Your task to perform on an android device: What's the weather going to be tomorrow? Image 0: 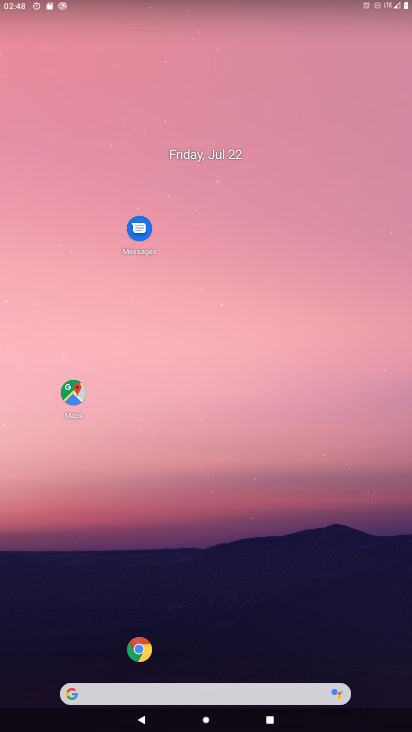
Step 0: drag from (24, 676) to (154, 204)
Your task to perform on an android device: What's the weather going to be tomorrow? Image 1: 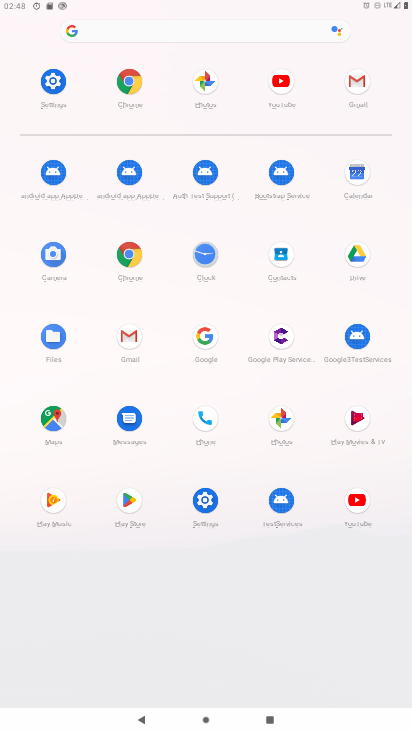
Step 1: click (83, 27)
Your task to perform on an android device: What's the weather going to be tomorrow? Image 2: 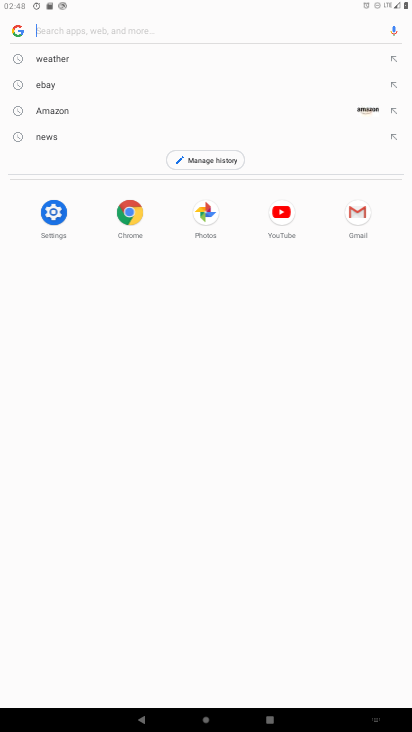
Step 2: type "What's the weather going to be tomorrow?"
Your task to perform on an android device: What's the weather going to be tomorrow? Image 3: 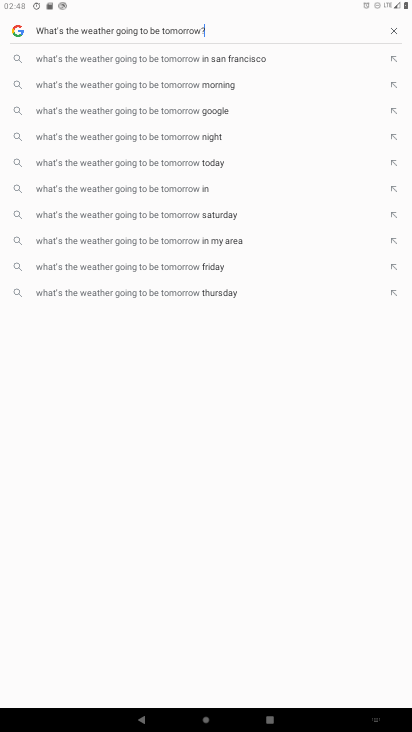
Step 3: type ""
Your task to perform on an android device: What's the weather going to be tomorrow? Image 4: 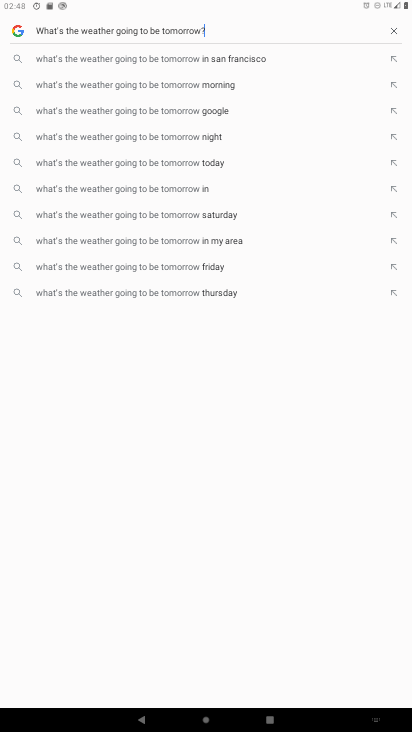
Step 4: type ""
Your task to perform on an android device: What's the weather going to be tomorrow? Image 5: 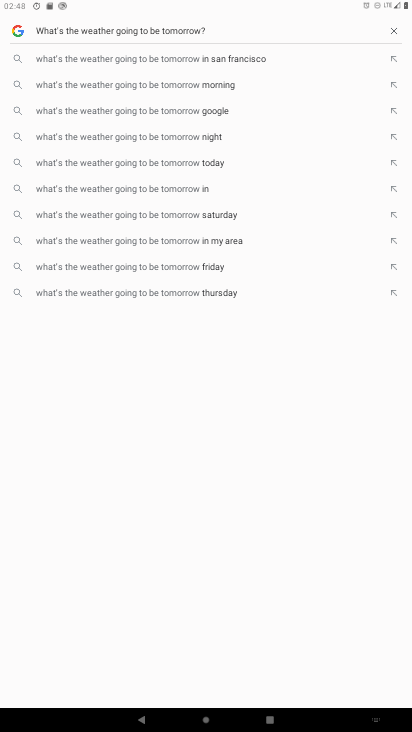
Step 5: type ""
Your task to perform on an android device: What's the weather going to be tomorrow? Image 6: 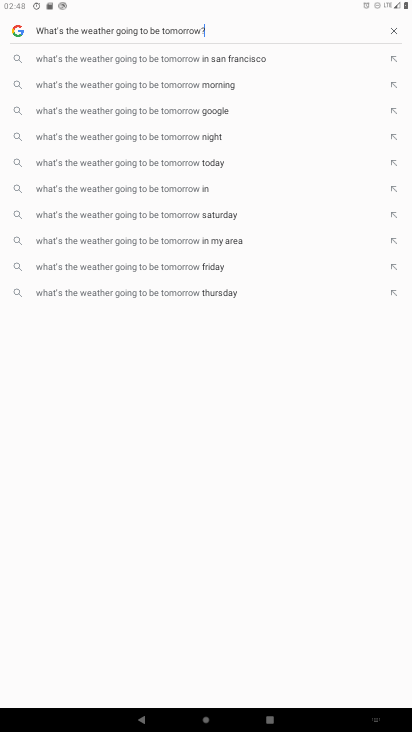
Step 6: type ""
Your task to perform on an android device: What's the weather going to be tomorrow? Image 7: 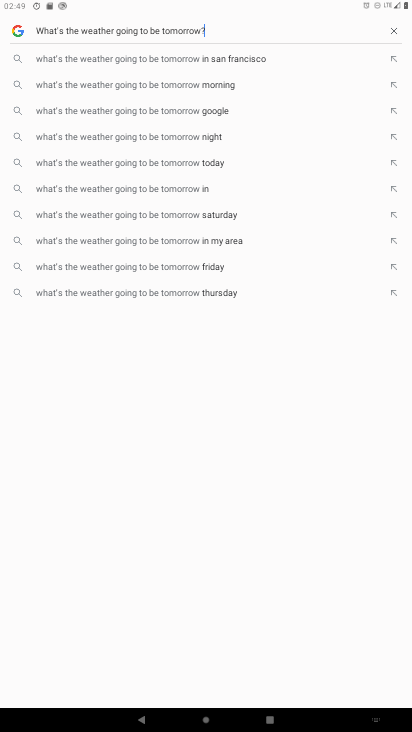
Step 7: task complete